Your task to perform on an android device: turn off picture-in-picture Image 0: 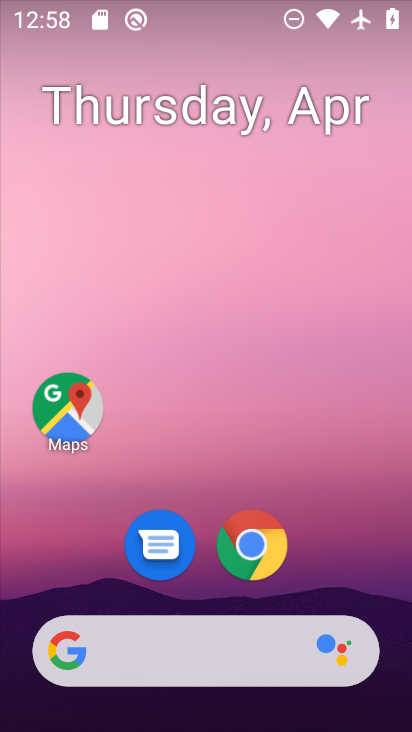
Step 0: click (259, 546)
Your task to perform on an android device: turn off picture-in-picture Image 1: 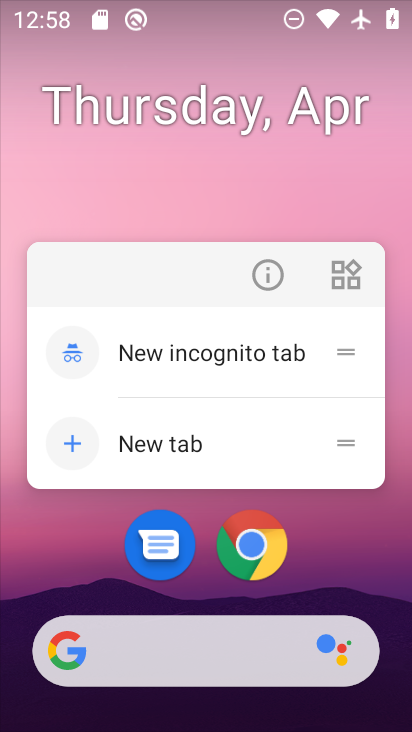
Step 1: drag from (259, 546) to (254, 411)
Your task to perform on an android device: turn off picture-in-picture Image 2: 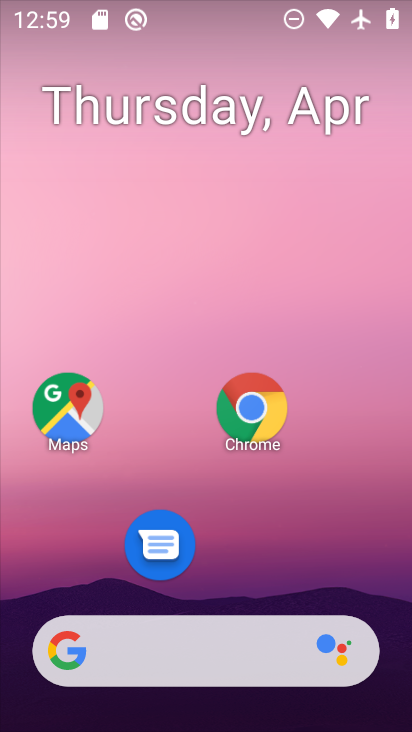
Step 2: click (254, 421)
Your task to perform on an android device: turn off picture-in-picture Image 3: 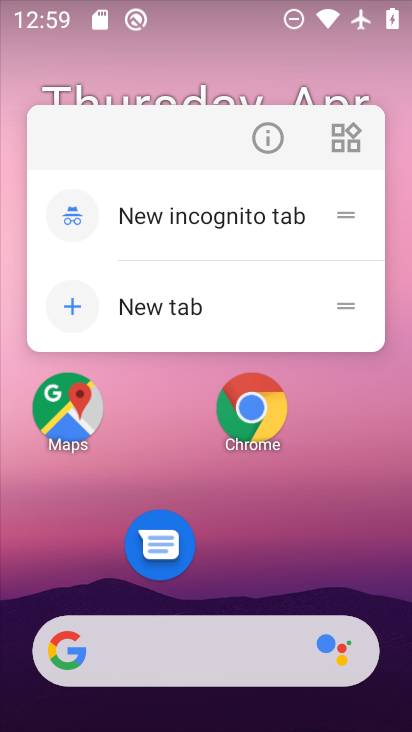
Step 3: click (266, 136)
Your task to perform on an android device: turn off picture-in-picture Image 4: 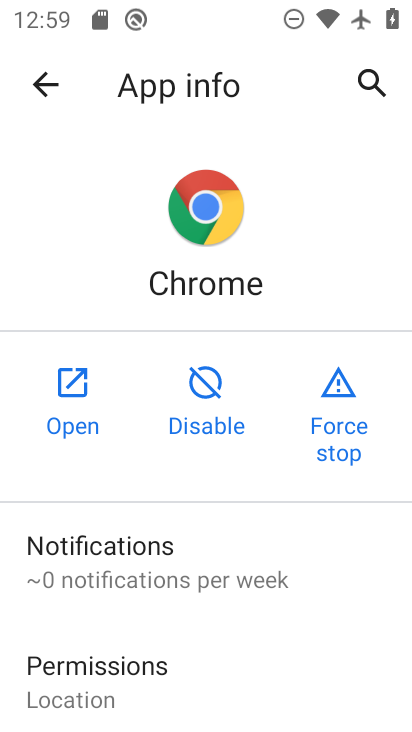
Step 4: drag from (196, 575) to (275, 79)
Your task to perform on an android device: turn off picture-in-picture Image 5: 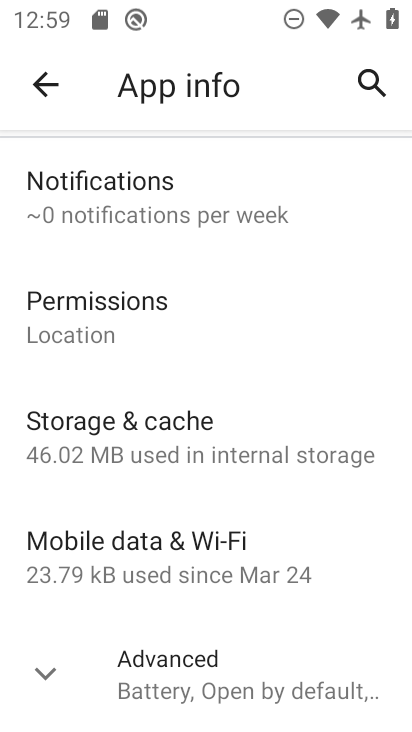
Step 5: drag from (225, 600) to (279, 319)
Your task to perform on an android device: turn off picture-in-picture Image 6: 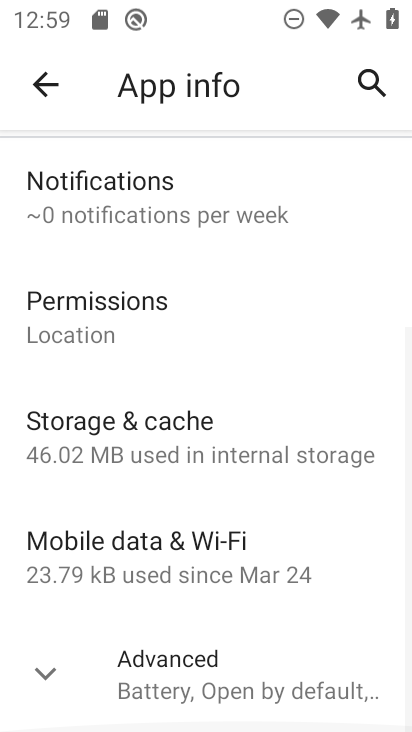
Step 6: click (155, 667)
Your task to perform on an android device: turn off picture-in-picture Image 7: 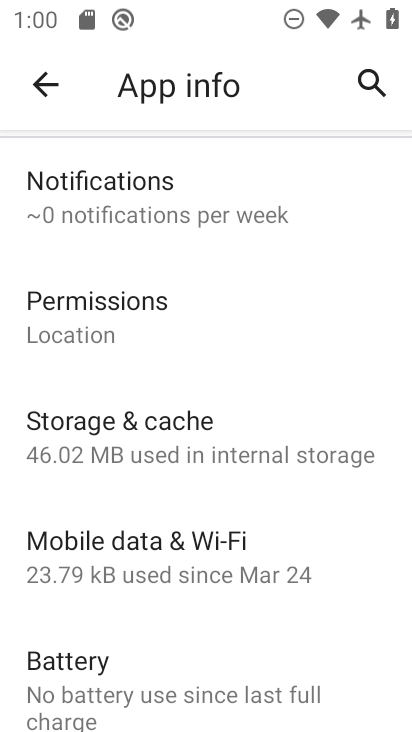
Step 7: drag from (242, 642) to (278, 191)
Your task to perform on an android device: turn off picture-in-picture Image 8: 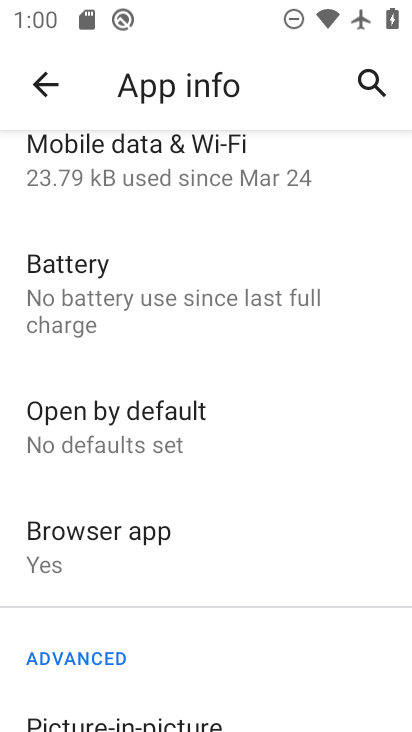
Step 8: drag from (211, 620) to (297, 257)
Your task to perform on an android device: turn off picture-in-picture Image 9: 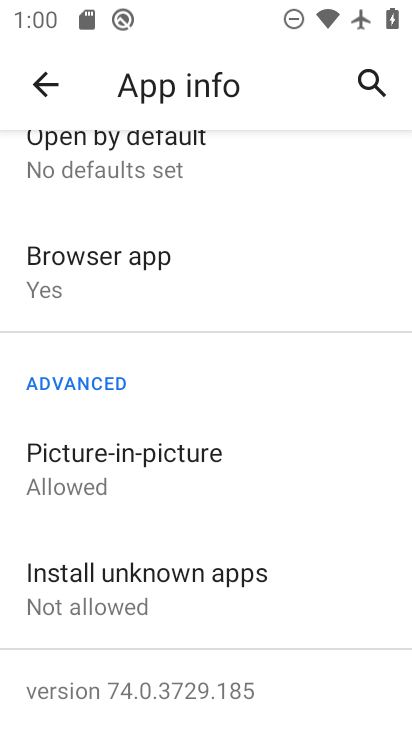
Step 9: click (172, 479)
Your task to perform on an android device: turn off picture-in-picture Image 10: 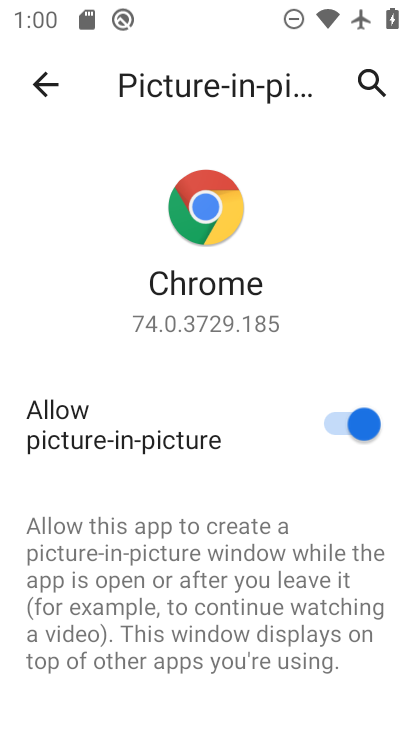
Step 10: click (343, 429)
Your task to perform on an android device: turn off picture-in-picture Image 11: 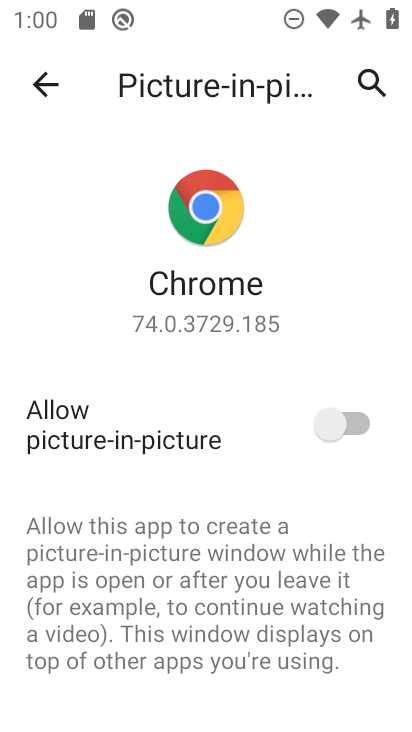
Step 11: task complete